Your task to perform on an android device: Open the phone app and click the voicemail tab. Image 0: 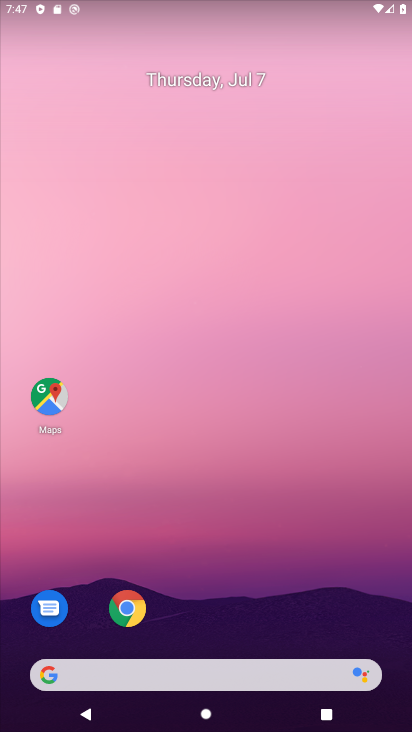
Step 0: drag from (251, 544) to (271, 128)
Your task to perform on an android device: Open the phone app and click the voicemail tab. Image 1: 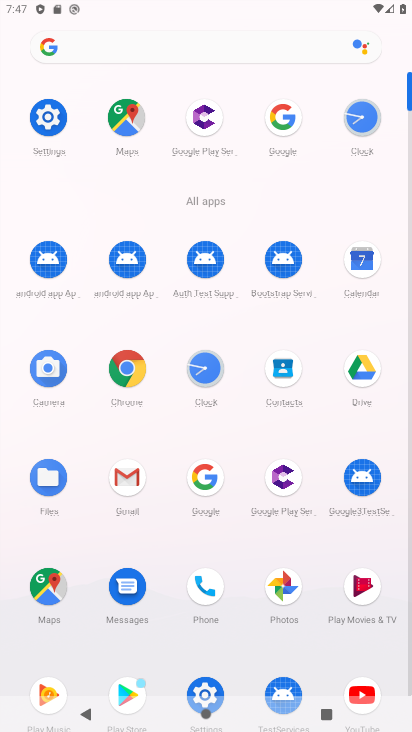
Step 1: click (204, 580)
Your task to perform on an android device: Open the phone app and click the voicemail tab. Image 2: 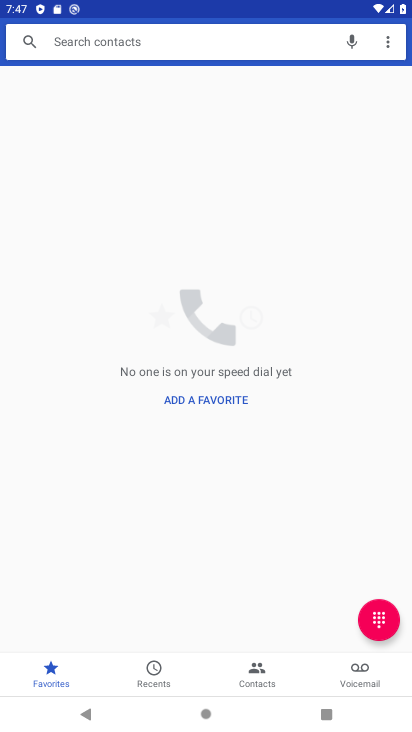
Step 2: click (342, 659)
Your task to perform on an android device: Open the phone app and click the voicemail tab. Image 3: 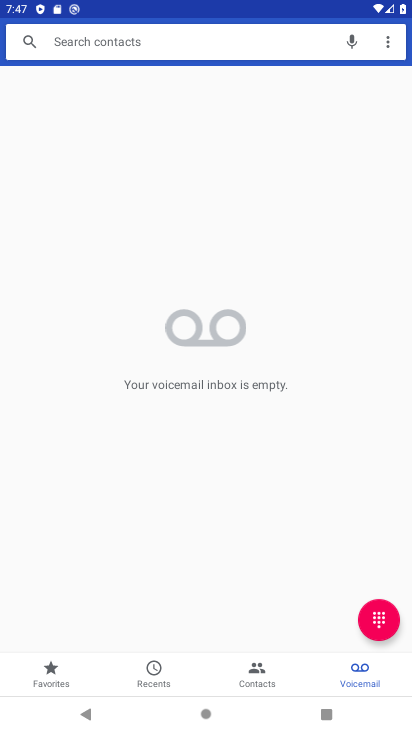
Step 3: click (356, 663)
Your task to perform on an android device: Open the phone app and click the voicemail tab. Image 4: 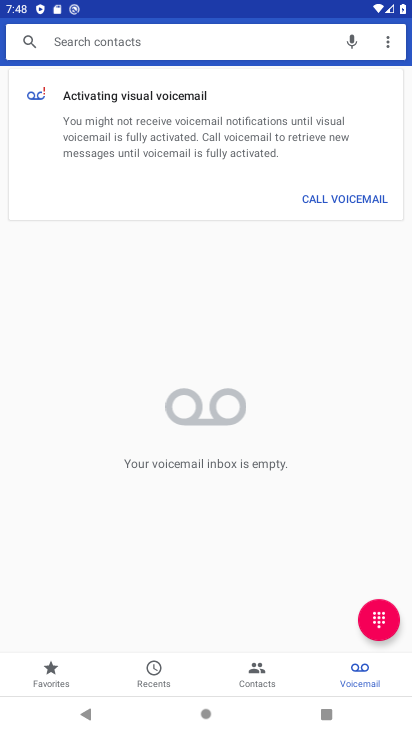
Step 4: task complete